Your task to perform on an android device: open chrome privacy settings Image 0: 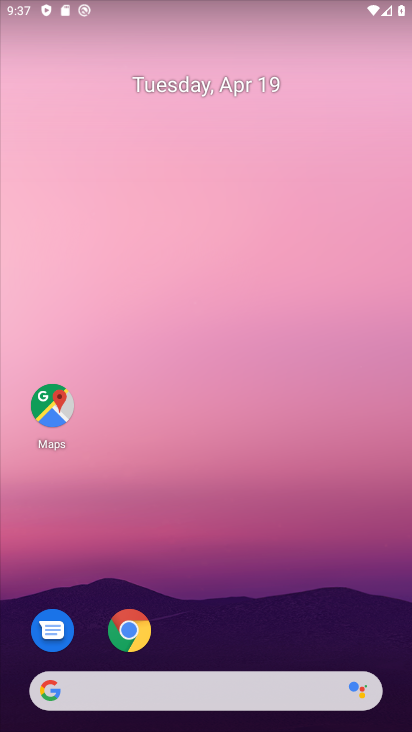
Step 0: click (140, 619)
Your task to perform on an android device: open chrome privacy settings Image 1: 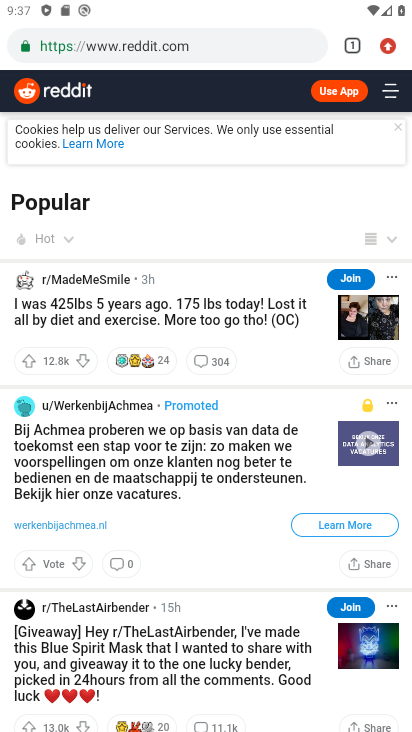
Step 1: drag from (391, 49) to (239, 591)
Your task to perform on an android device: open chrome privacy settings Image 2: 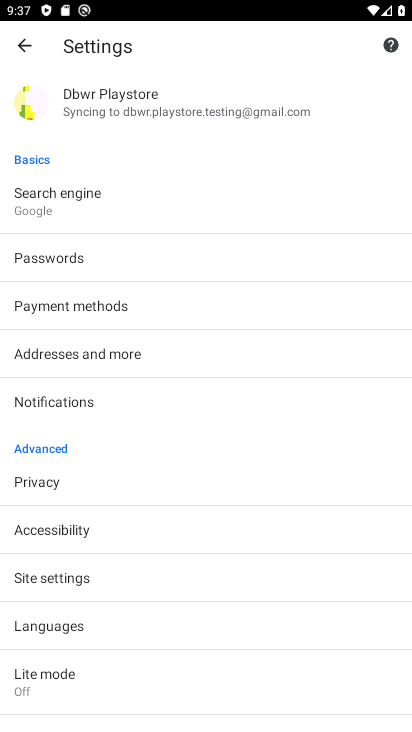
Step 2: click (56, 473)
Your task to perform on an android device: open chrome privacy settings Image 3: 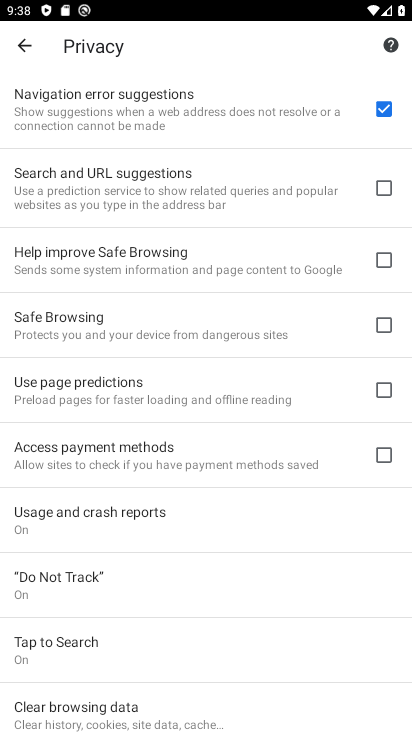
Step 3: task complete